Your task to perform on an android device: Open privacy settings Image 0: 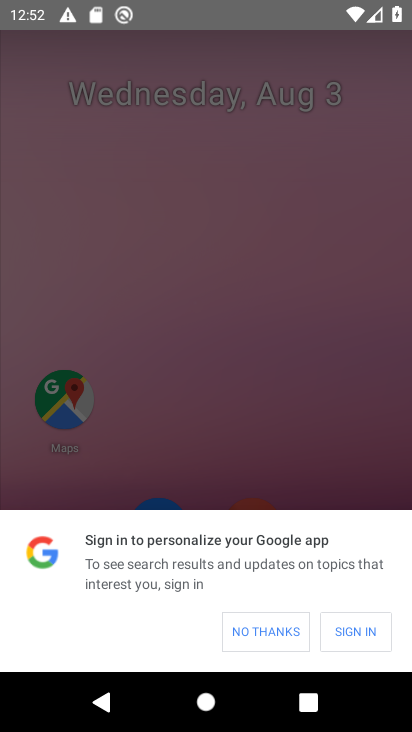
Step 0: press home button
Your task to perform on an android device: Open privacy settings Image 1: 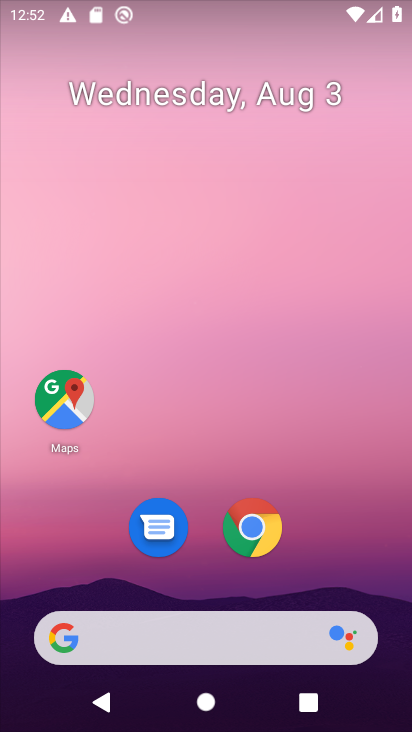
Step 1: drag from (29, 698) to (155, 11)
Your task to perform on an android device: Open privacy settings Image 2: 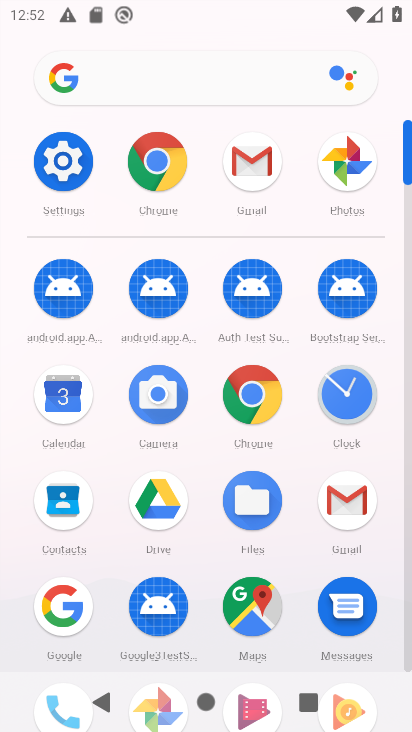
Step 2: drag from (224, 643) to (183, 197)
Your task to perform on an android device: Open privacy settings Image 3: 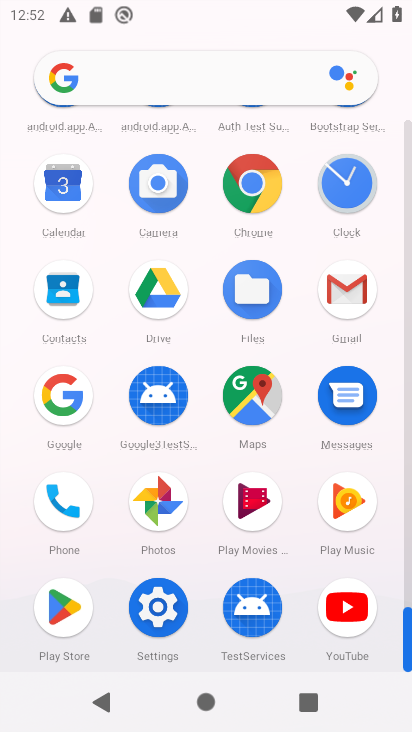
Step 3: click (167, 598)
Your task to perform on an android device: Open privacy settings Image 4: 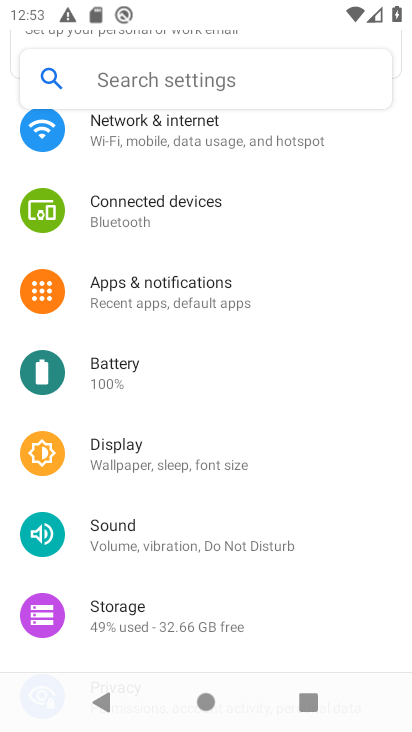
Step 4: drag from (198, 514) to (212, 190)
Your task to perform on an android device: Open privacy settings Image 5: 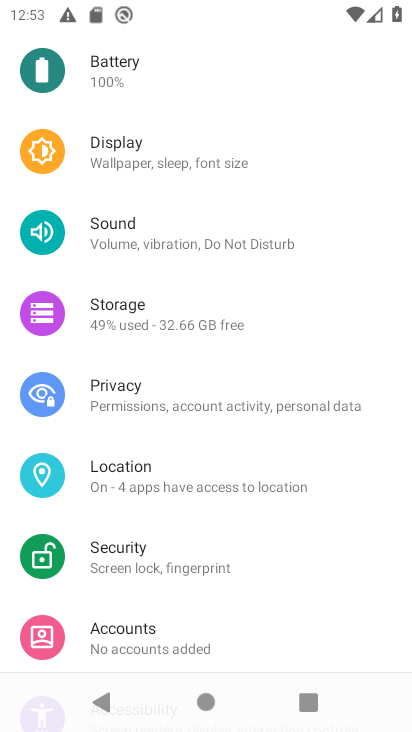
Step 5: drag from (210, 528) to (194, 411)
Your task to perform on an android device: Open privacy settings Image 6: 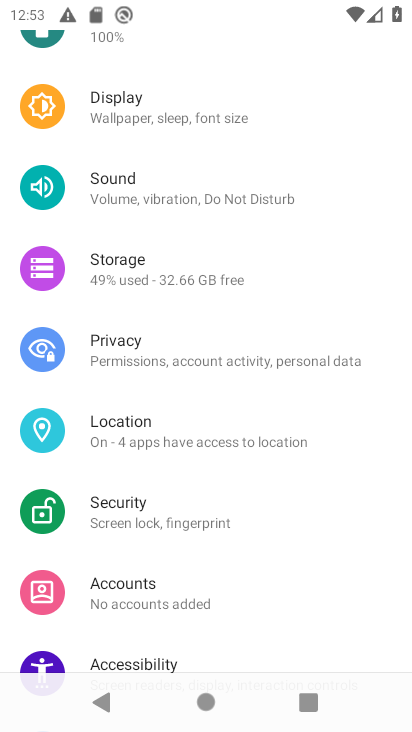
Step 6: drag from (238, 629) to (276, 391)
Your task to perform on an android device: Open privacy settings Image 7: 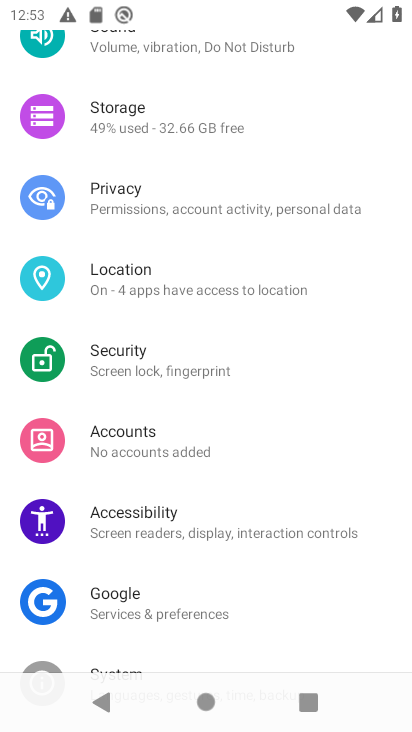
Step 7: drag from (221, 521) to (209, 289)
Your task to perform on an android device: Open privacy settings Image 8: 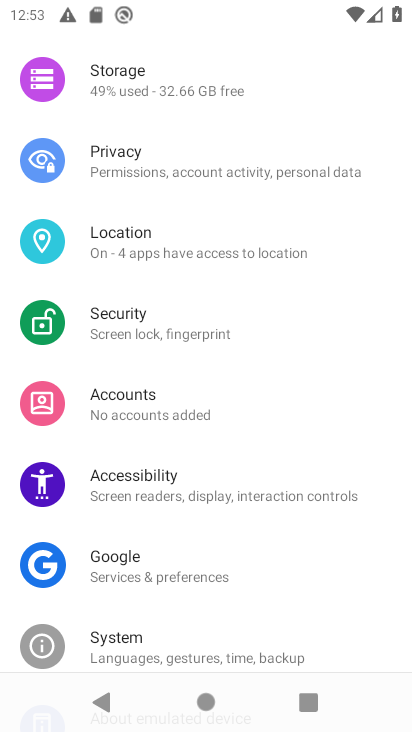
Step 8: click (172, 165)
Your task to perform on an android device: Open privacy settings Image 9: 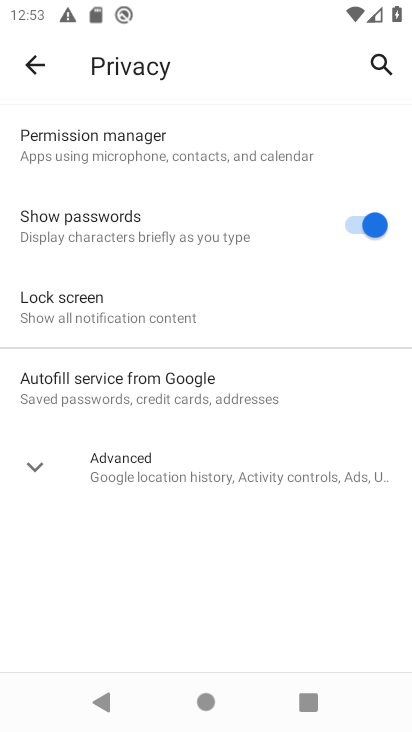
Step 9: task complete